Your task to perform on an android device: snooze an email in the gmail app Image 0: 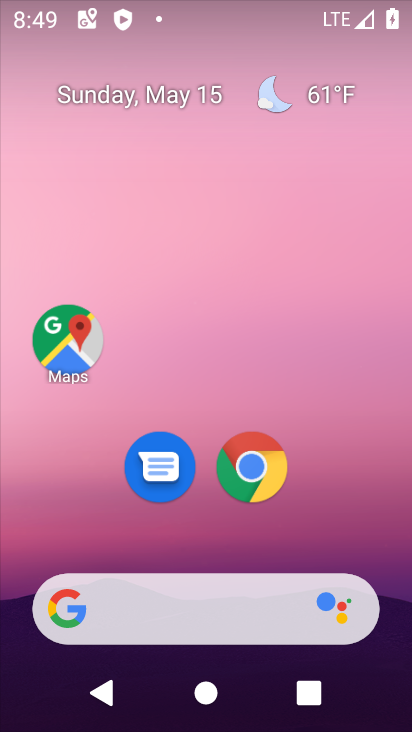
Step 0: drag from (219, 432) to (215, 107)
Your task to perform on an android device: snooze an email in the gmail app Image 1: 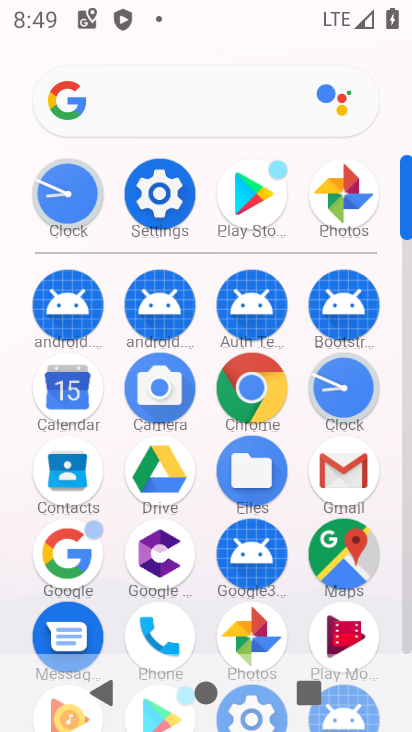
Step 1: click (348, 486)
Your task to perform on an android device: snooze an email in the gmail app Image 2: 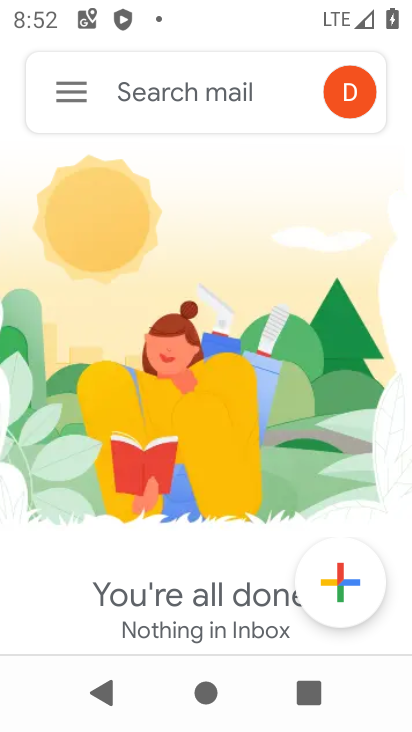
Step 2: task complete